Your task to perform on an android device: turn on notifications settings in the gmail app Image 0: 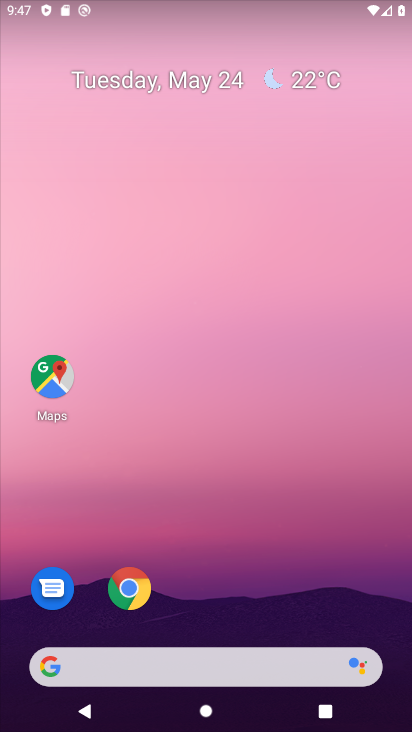
Step 0: drag from (213, 613) to (242, 137)
Your task to perform on an android device: turn on notifications settings in the gmail app Image 1: 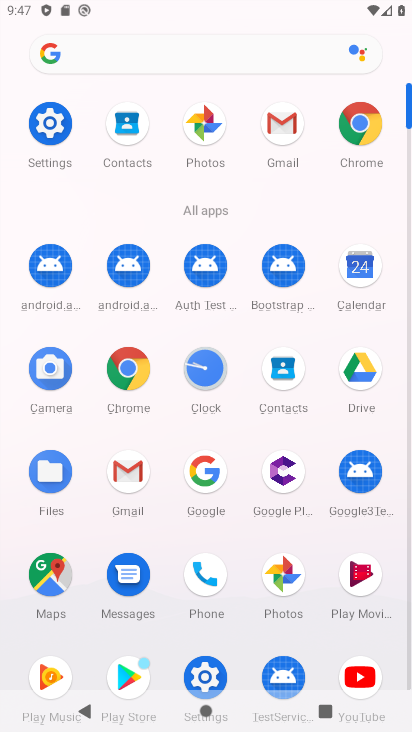
Step 1: click (293, 130)
Your task to perform on an android device: turn on notifications settings in the gmail app Image 2: 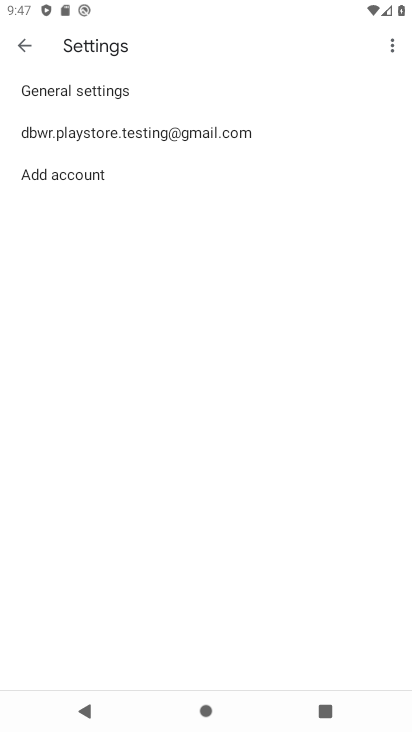
Step 2: click (155, 137)
Your task to perform on an android device: turn on notifications settings in the gmail app Image 3: 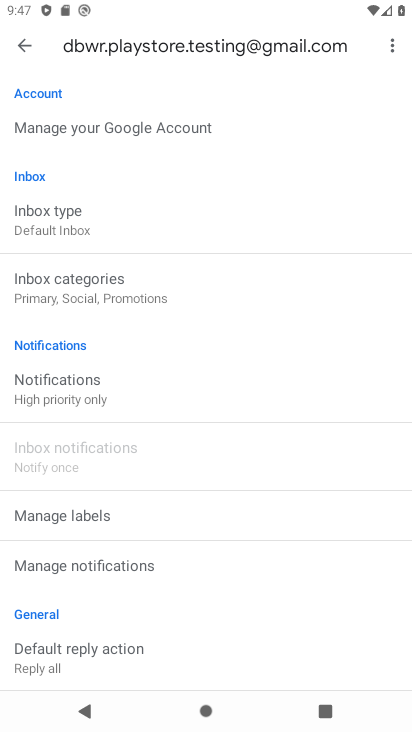
Step 3: click (128, 396)
Your task to perform on an android device: turn on notifications settings in the gmail app Image 4: 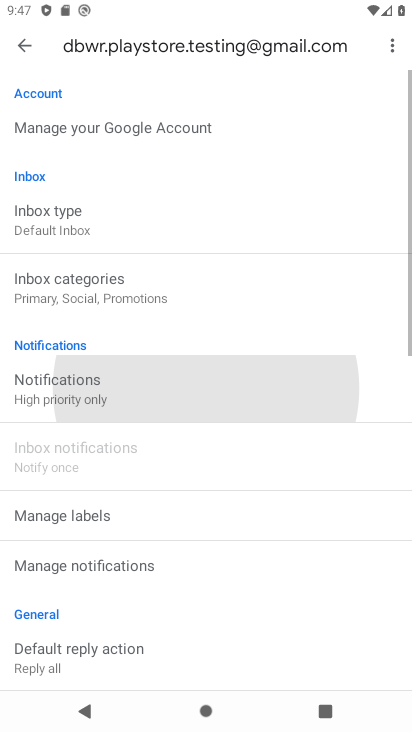
Step 4: click (104, 390)
Your task to perform on an android device: turn on notifications settings in the gmail app Image 5: 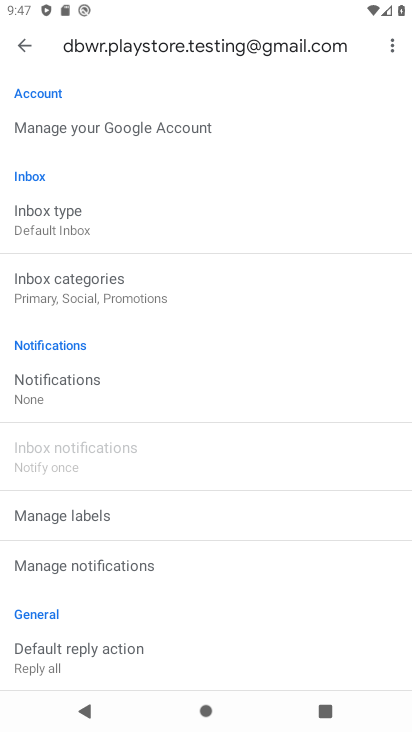
Step 5: click (72, 388)
Your task to perform on an android device: turn on notifications settings in the gmail app Image 6: 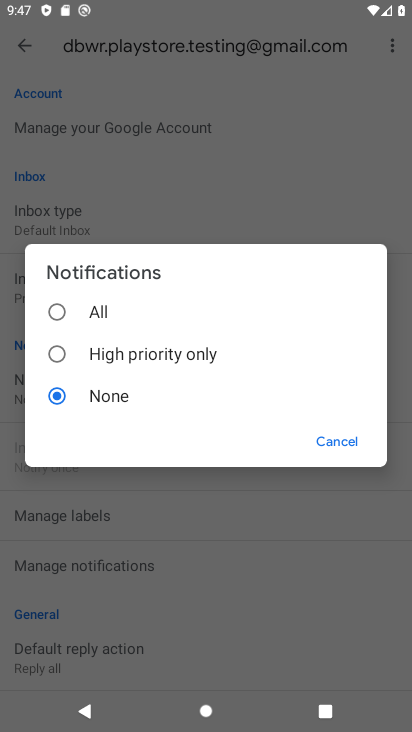
Step 6: click (88, 299)
Your task to perform on an android device: turn on notifications settings in the gmail app Image 7: 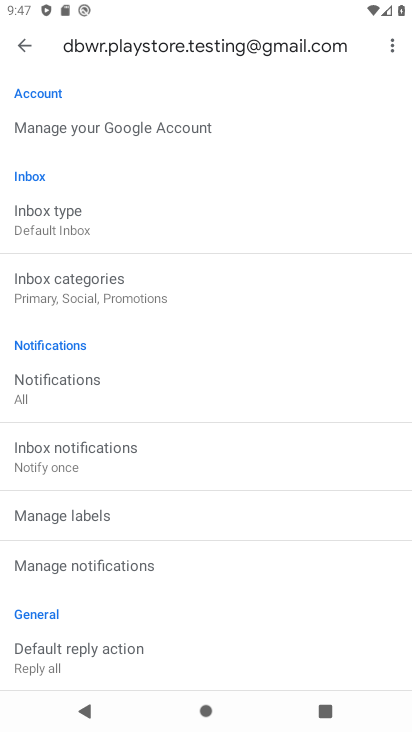
Step 7: task complete